Your task to perform on an android device: Open CNN.com Image 0: 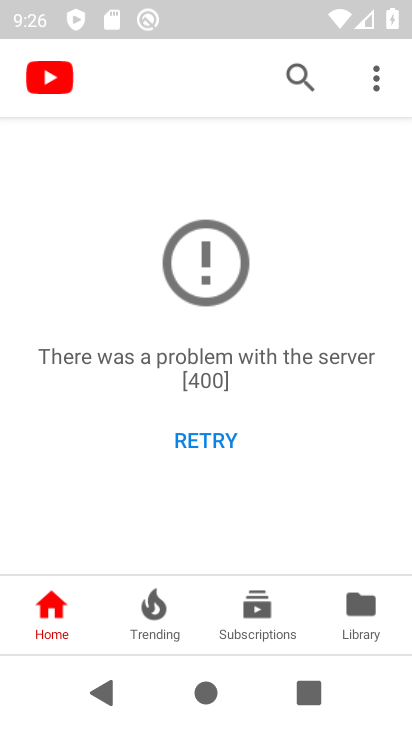
Step 0: press home button
Your task to perform on an android device: Open CNN.com Image 1: 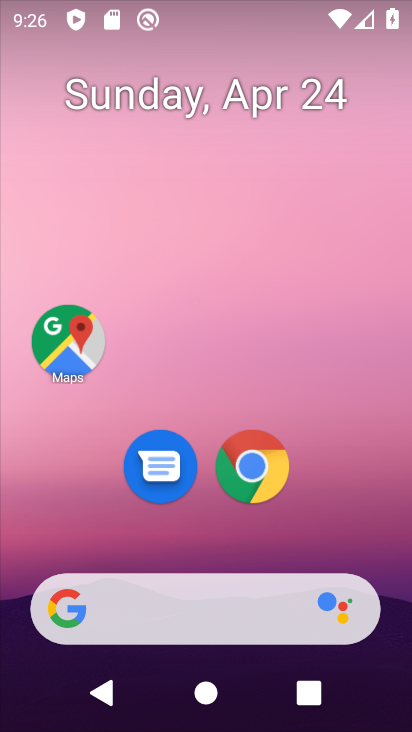
Step 1: click (266, 465)
Your task to perform on an android device: Open CNN.com Image 2: 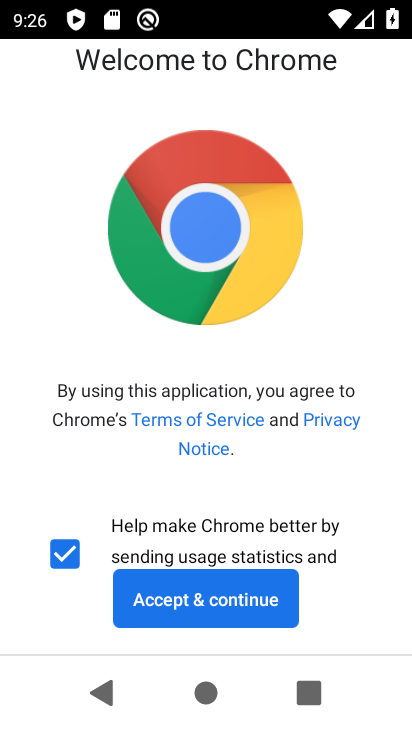
Step 2: click (244, 600)
Your task to perform on an android device: Open CNN.com Image 3: 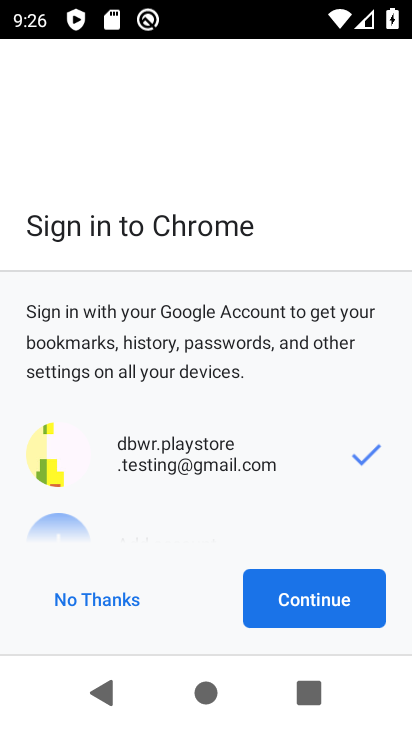
Step 3: click (327, 592)
Your task to perform on an android device: Open CNN.com Image 4: 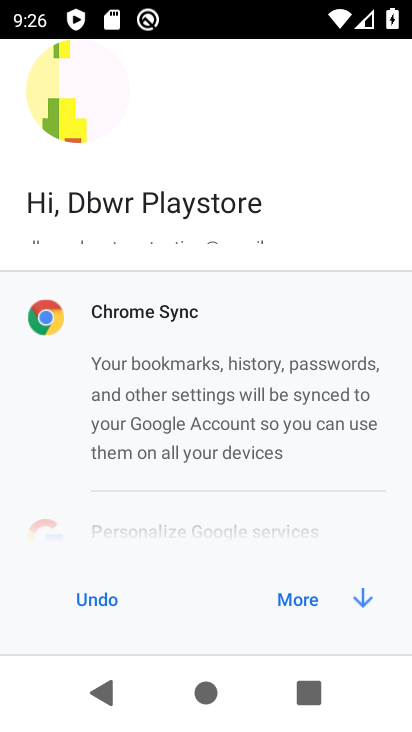
Step 4: click (305, 604)
Your task to perform on an android device: Open CNN.com Image 5: 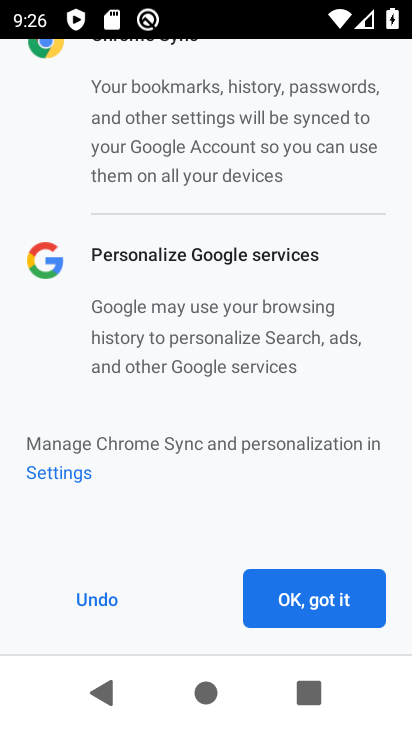
Step 5: click (305, 604)
Your task to perform on an android device: Open CNN.com Image 6: 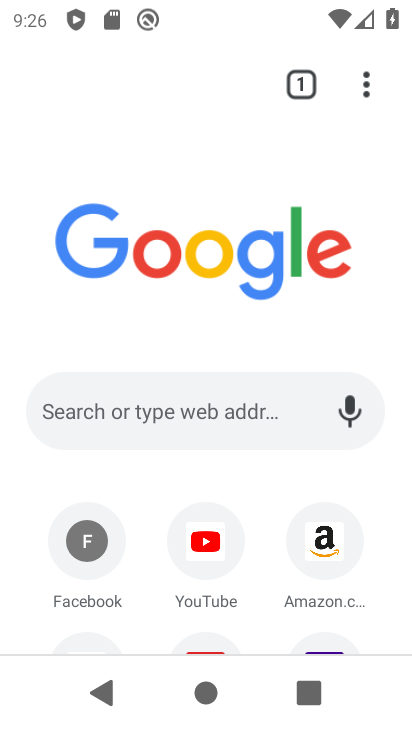
Step 6: drag from (143, 447) to (122, 233)
Your task to perform on an android device: Open CNN.com Image 7: 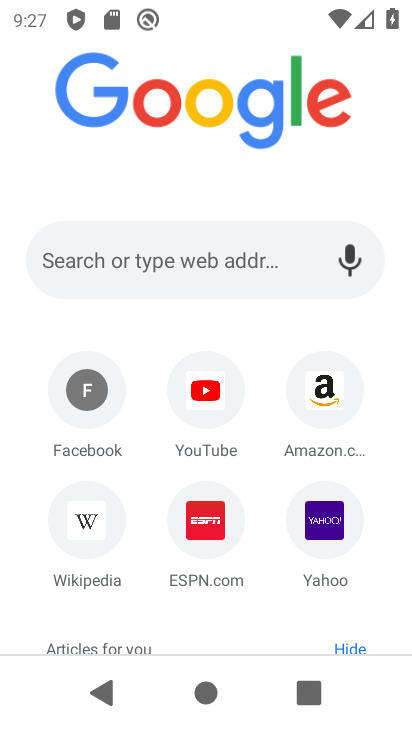
Step 7: click (188, 240)
Your task to perform on an android device: Open CNN.com Image 8: 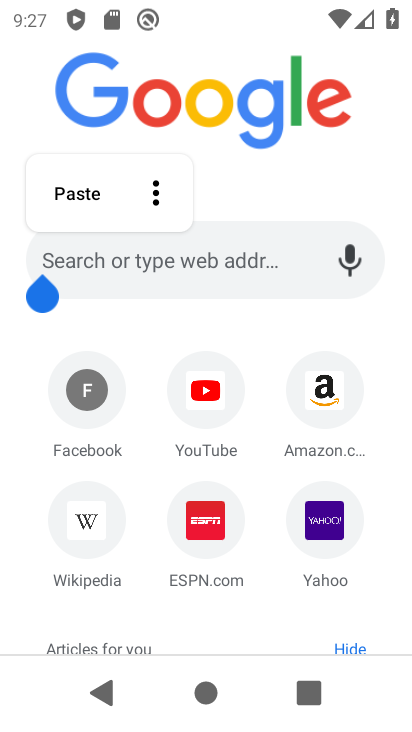
Step 8: click (207, 290)
Your task to perform on an android device: Open CNN.com Image 9: 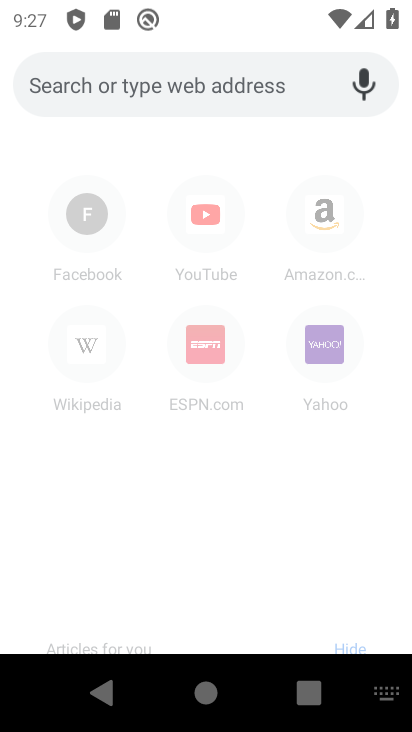
Step 9: type "cnn.com"
Your task to perform on an android device: Open CNN.com Image 10: 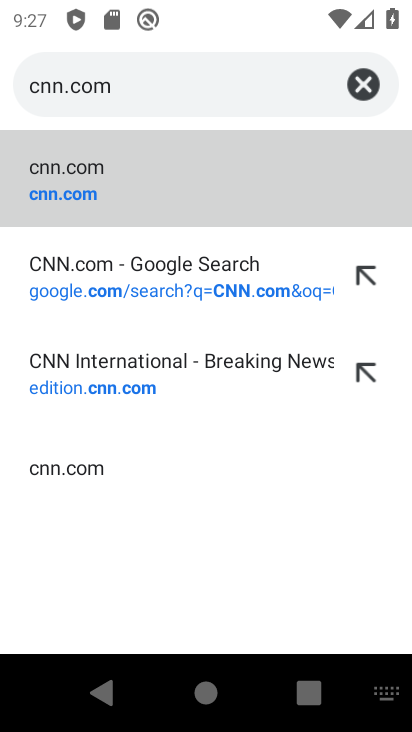
Step 10: click (160, 178)
Your task to perform on an android device: Open CNN.com Image 11: 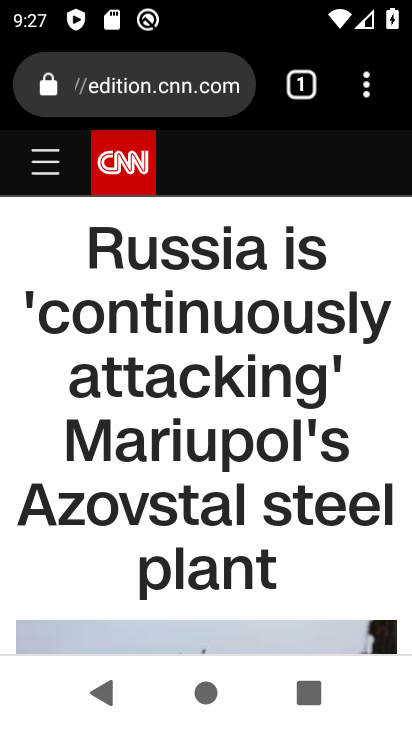
Step 11: task complete